Your task to perform on an android device: See recent photos Image 0: 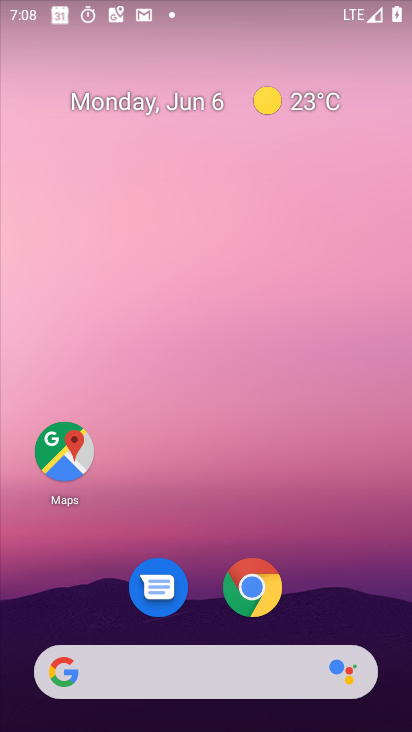
Step 0: drag from (385, 637) to (250, 40)
Your task to perform on an android device: See recent photos Image 1: 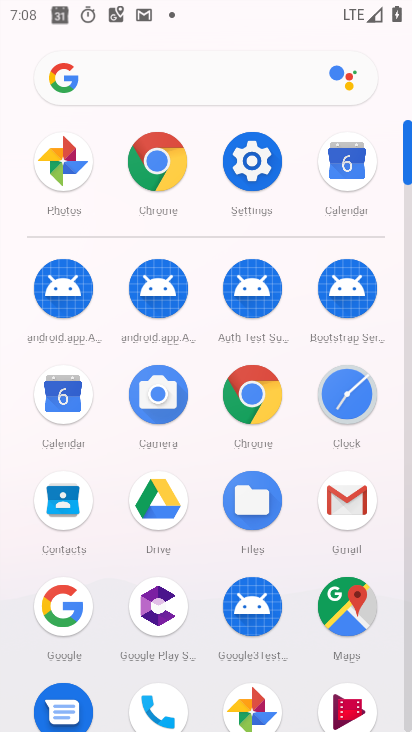
Step 1: click (254, 704)
Your task to perform on an android device: See recent photos Image 2: 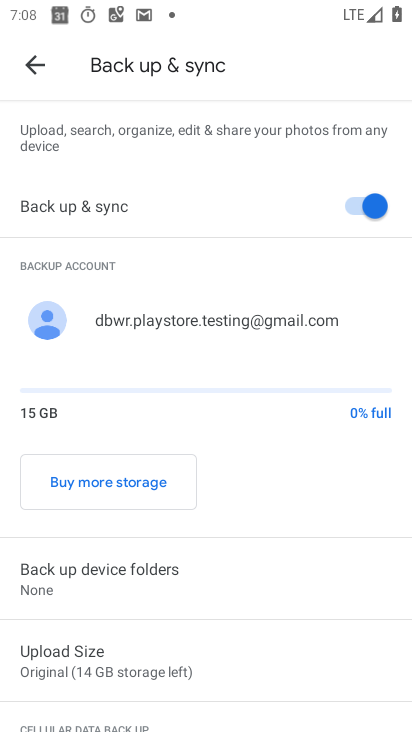
Step 2: press back button
Your task to perform on an android device: See recent photos Image 3: 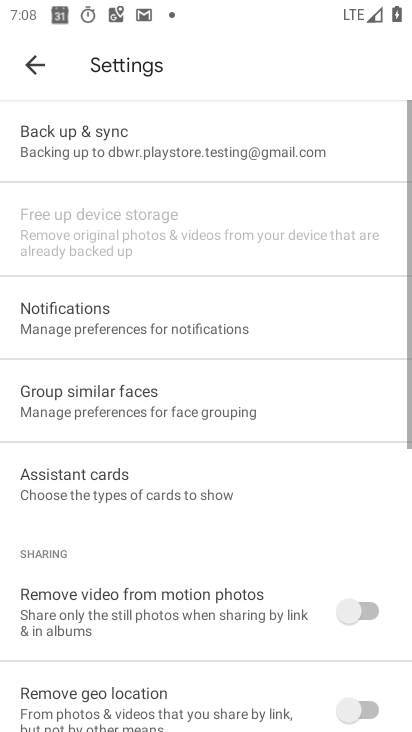
Step 3: press back button
Your task to perform on an android device: See recent photos Image 4: 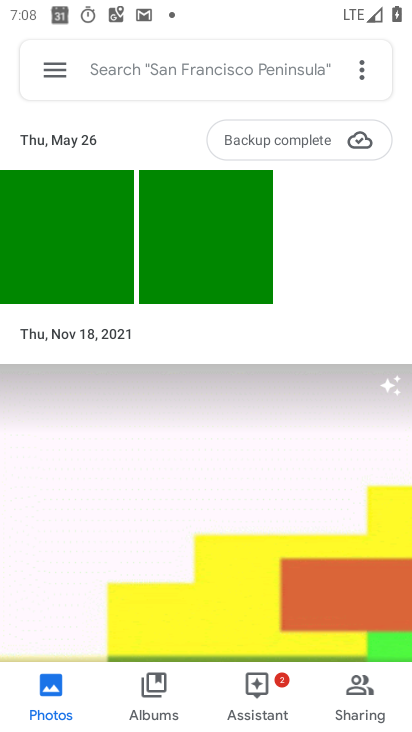
Step 4: click (91, 245)
Your task to perform on an android device: See recent photos Image 5: 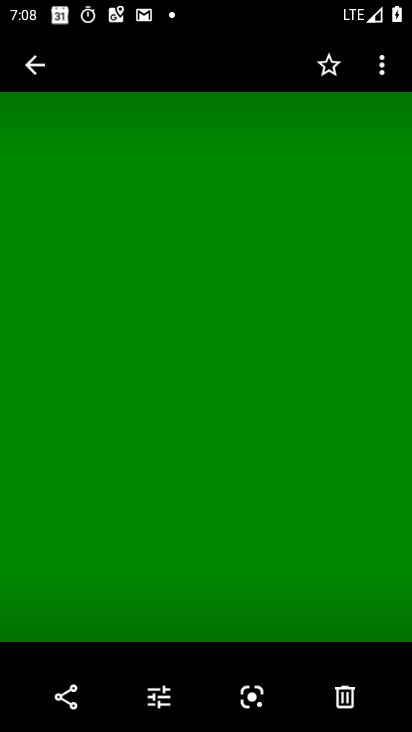
Step 5: task complete